Your task to perform on an android device: add a label to a message in the gmail app Image 0: 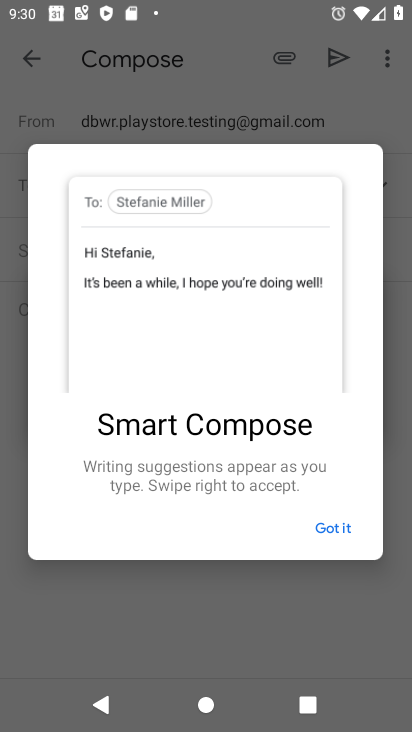
Step 0: press home button
Your task to perform on an android device: add a label to a message in the gmail app Image 1: 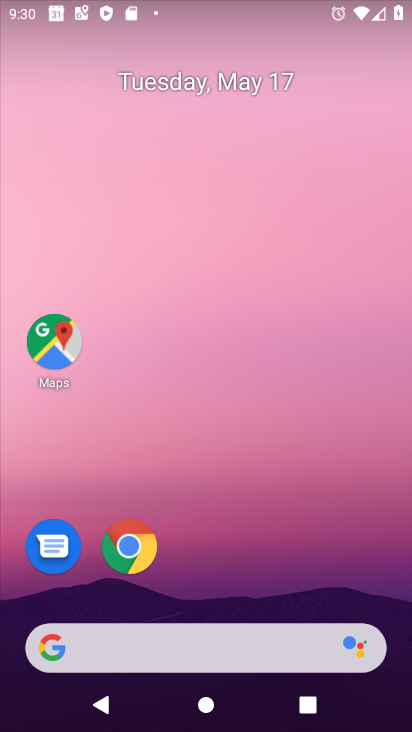
Step 1: drag from (261, 591) to (182, 85)
Your task to perform on an android device: add a label to a message in the gmail app Image 2: 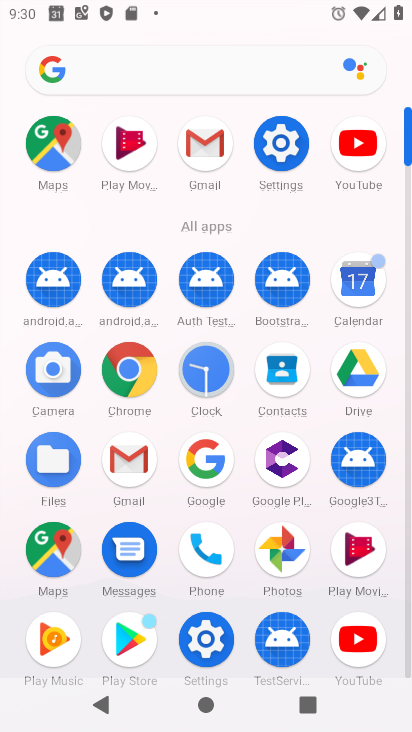
Step 2: click (141, 462)
Your task to perform on an android device: add a label to a message in the gmail app Image 3: 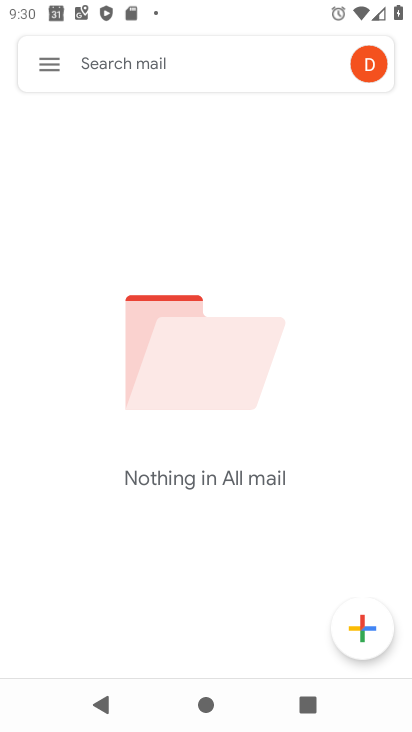
Step 3: click (53, 67)
Your task to perform on an android device: add a label to a message in the gmail app Image 4: 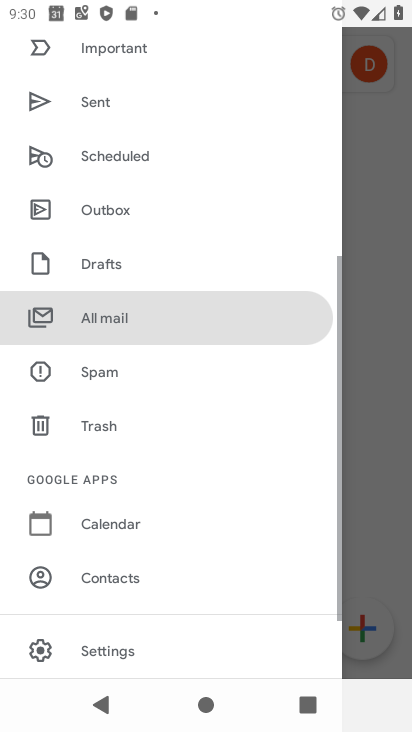
Step 4: click (162, 311)
Your task to perform on an android device: add a label to a message in the gmail app Image 5: 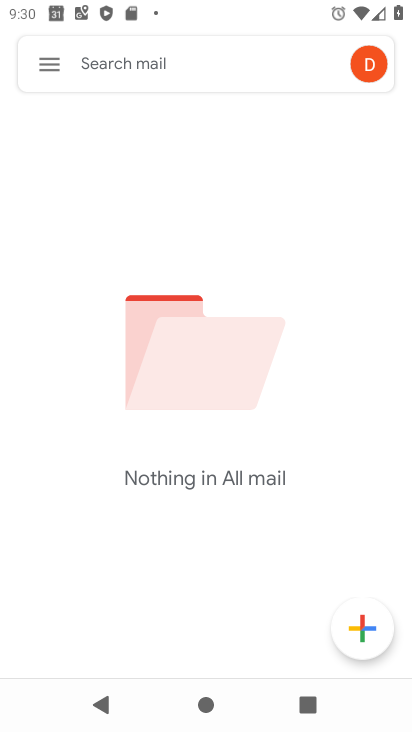
Step 5: task complete